Your task to perform on an android device: Go to ESPN.com Image 0: 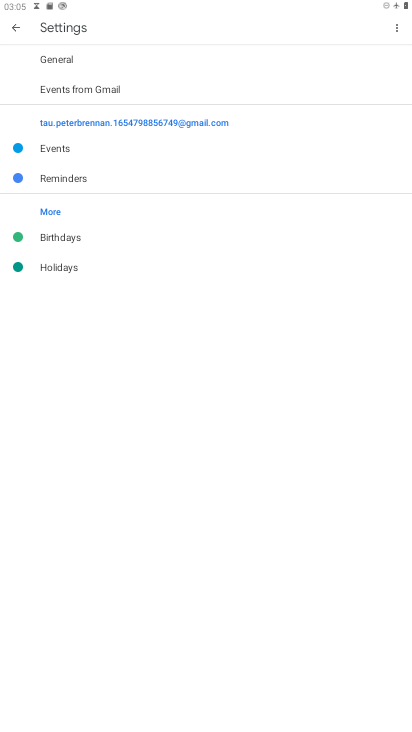
Step 0: press home button
Your task to perform on an android device: Go to ESPN.com Image 1: 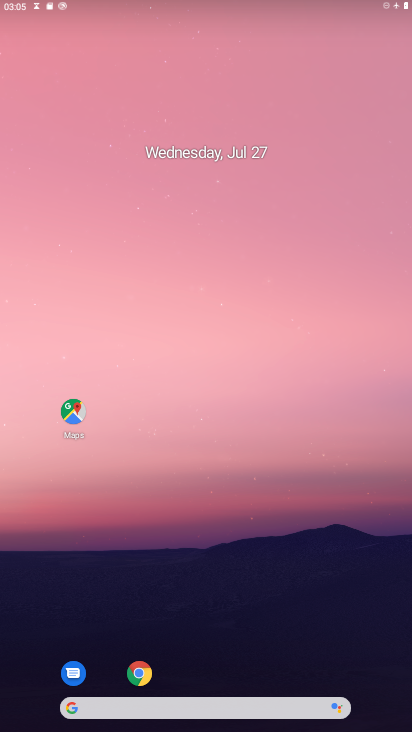
Step 1: drag from (216, 621) to (220, 169)
Your task to perform on an android device: Go to ESPN.com Image 2: 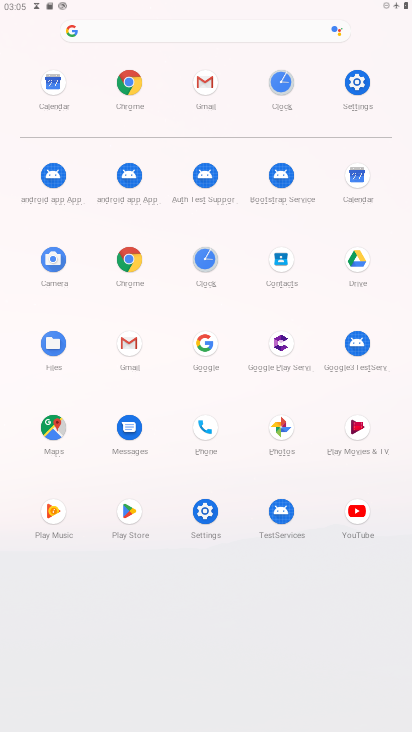
Step 2: click (128, 77)
Your task to perform on an android device: Go to ESPN.com Image 3: 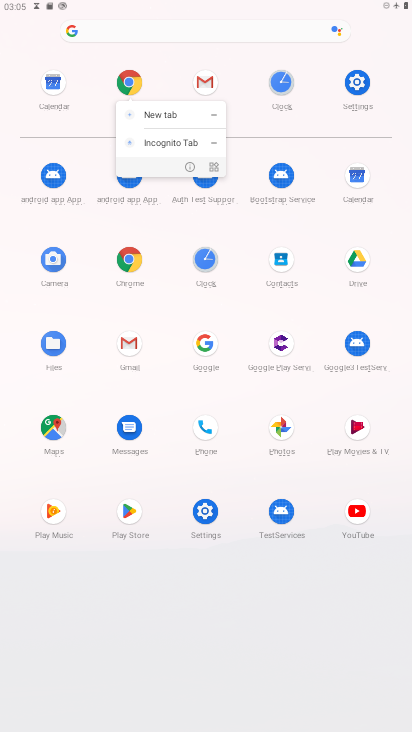
Step 3: click (130, 96)
Your task to perform on an android device: Go to ESPN.com Image 4: 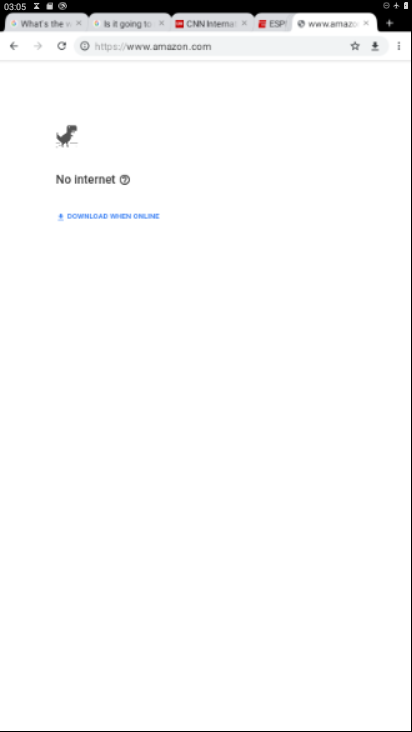
Step 4: click (130, 78)
Your task to perform on an android device: Go to ESPN.com Image 5: 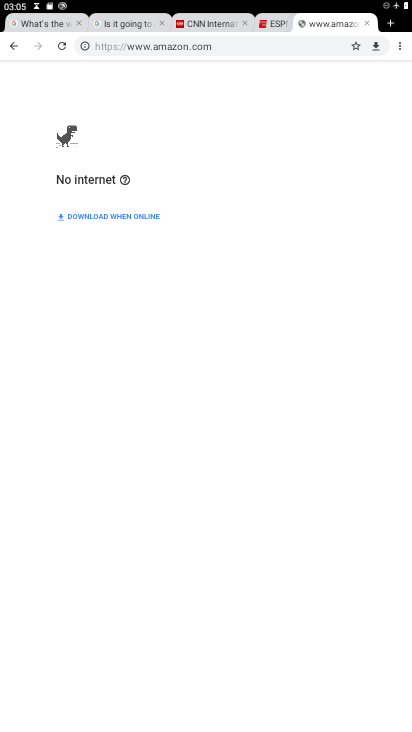
Step 5: click (367, 21)
Your task to perform on an android device: Go to ESPN.com Image 6: 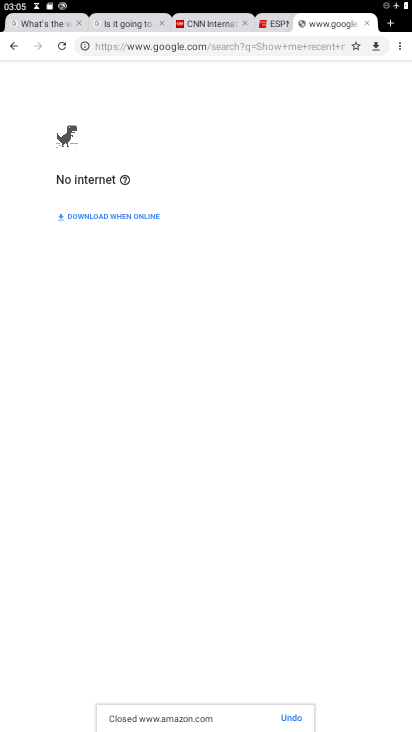
Step 6: click (393, 22)
Your task to perform on an android device: Go to ESPN.com Image 7: 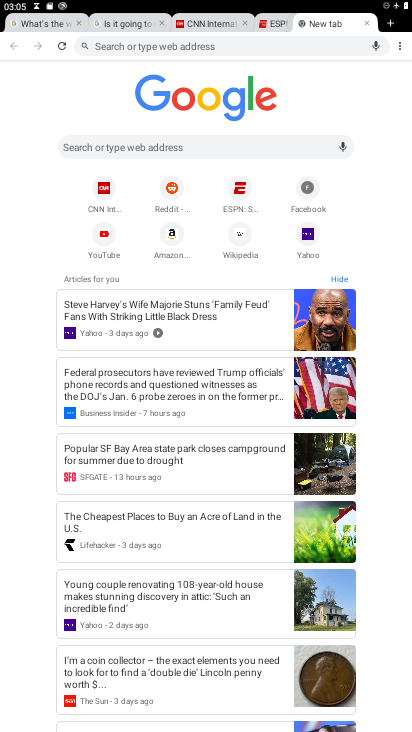
Step 7: click (245, 197)
Your task to perform on an android device: Go to ESPN.com Image 8: 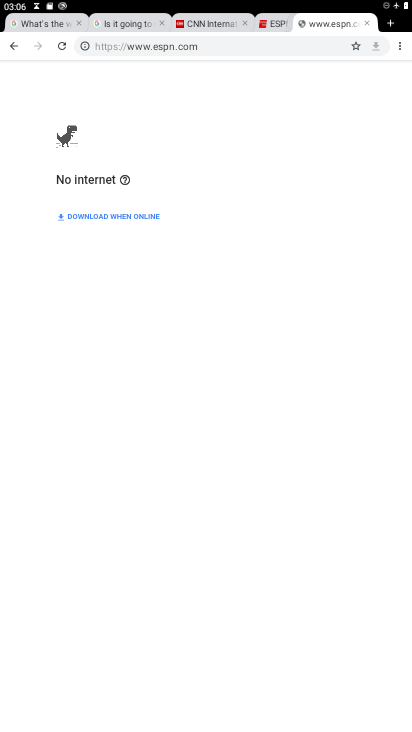
Step 8: task complete